Your task to perform on an android device: Open internet settings Image 0: 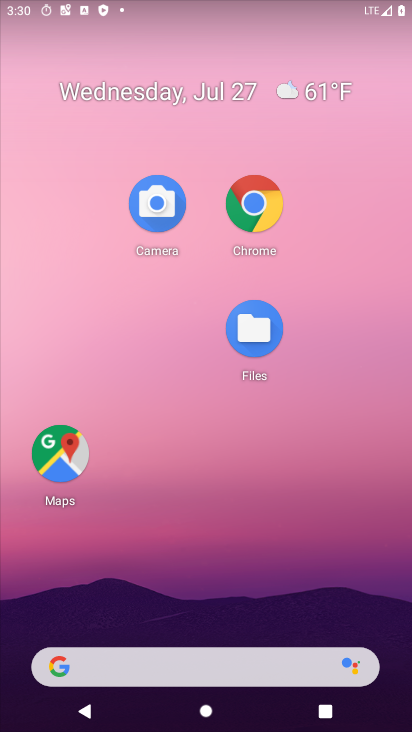
Step 0: drag from (186, 604) to (246, 117)
Your task to perform on an android device: Open internet settings Image 1: 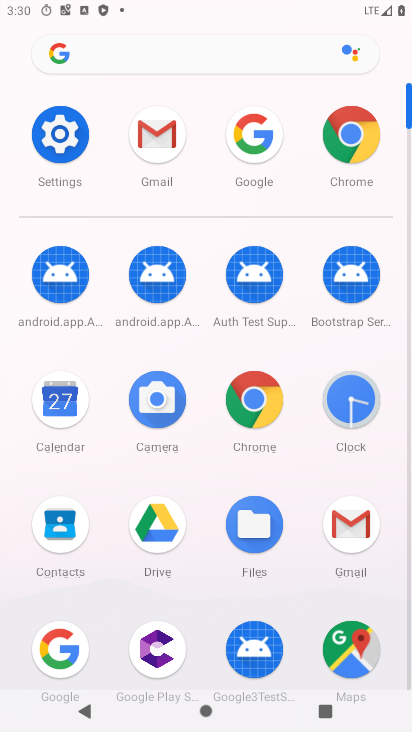
Step 1: click (47, 147)
Your task to perform on an android device: Open internet settings Image 2: 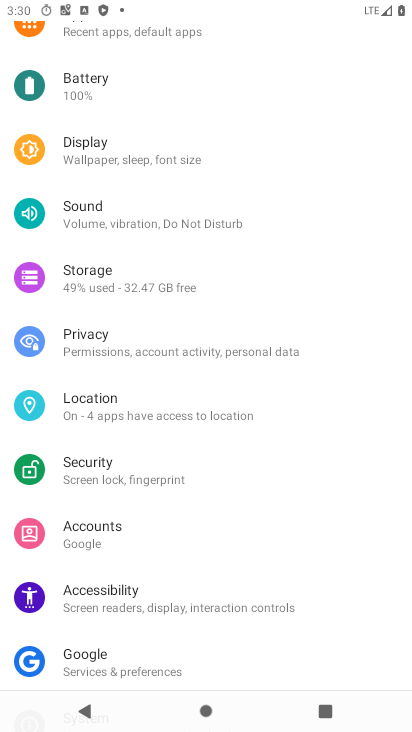
Step 2: drag from (124, 171) to (154, 508)
Your task to perform on an android device: Open internet settings Image 3: 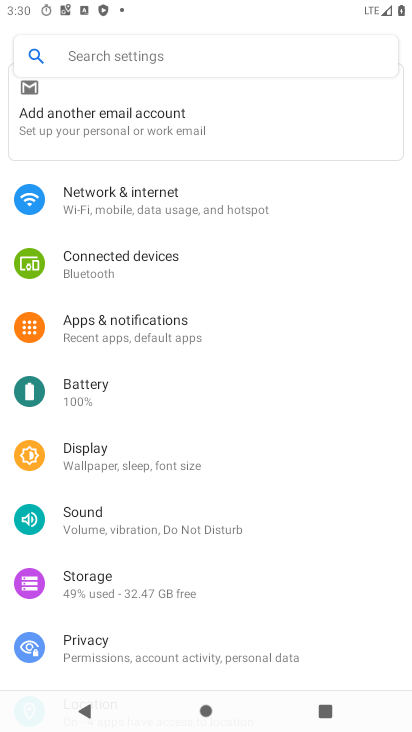
Step 3: click (128, 209)
Your task to perform on an android device: Open internet settings Image 4: 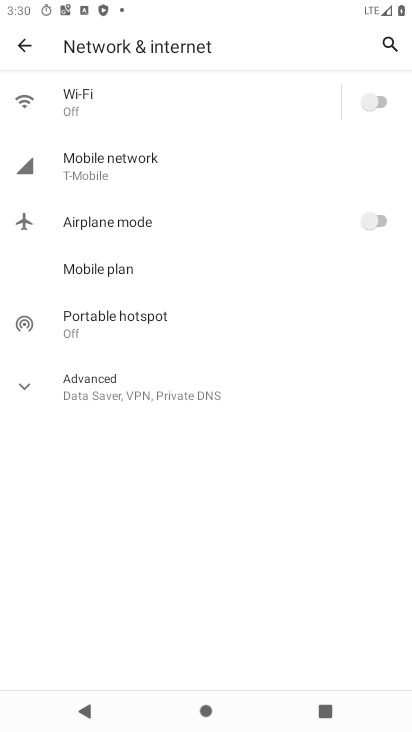
Step 4: task complete